Your task to perform on an android device: toggle translation in the chrome app Image 0: 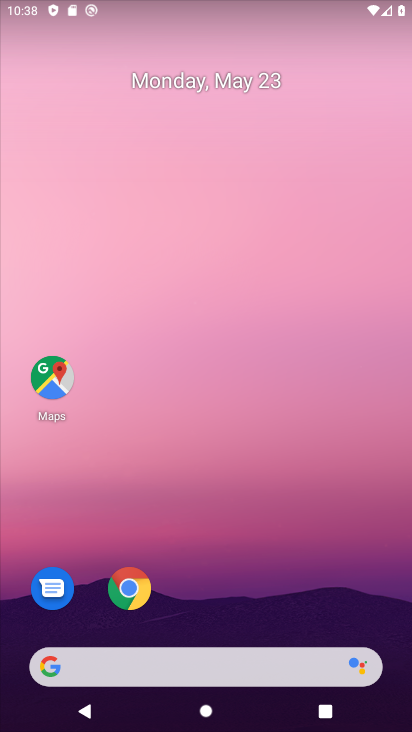
Step 0: drag from (324, 600) to (329, 143)
Your task to perform on an android device: toggle translation in the chrome app Image 1: 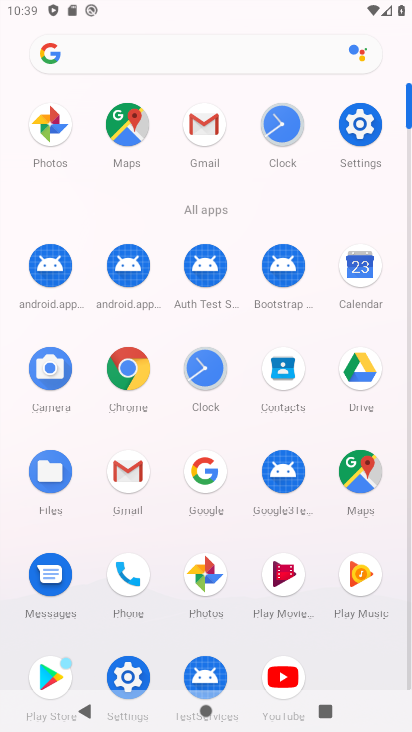
Step 1: click (139, 375)
Your task to perform on an android device: toggle translation in the chrome app Image 2: 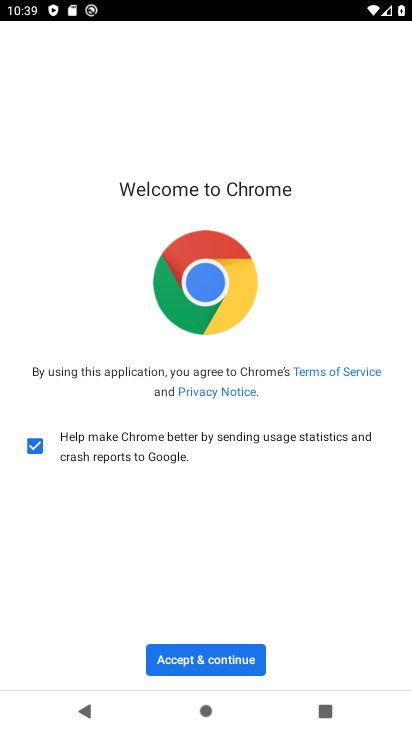
Step 2: click (222, 649)
Your task to perform on an android device: toggle translation in the chrome app Image 3: 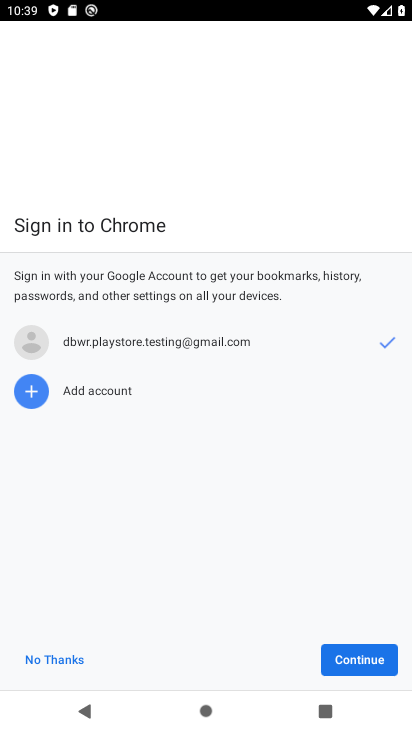
Step 3: click (331, 661)
Your task to perform on an android device: toggle translation in the chrome app Image 4: 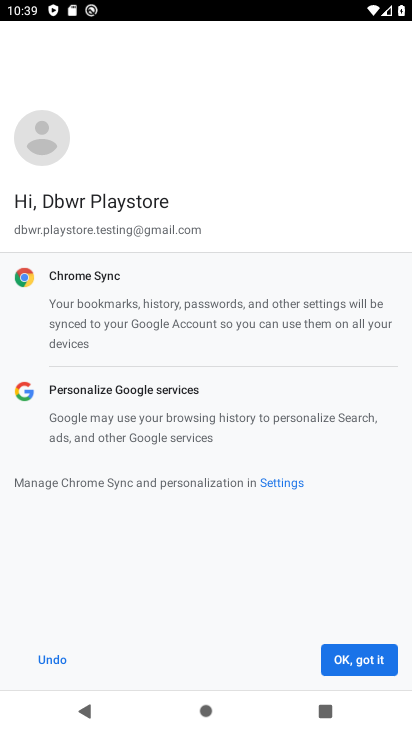
Step 4: click (385, 667)
Your task to perform on an android device: toggle translation in the chrome app Image 5: 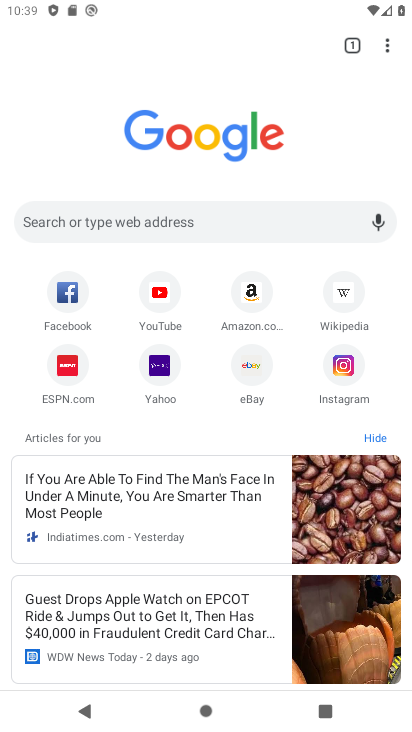
Step 5: drag from (395, 47) to (213, 376)
Your task to perform on an android device: toggle translation in the chrome app Image 6: 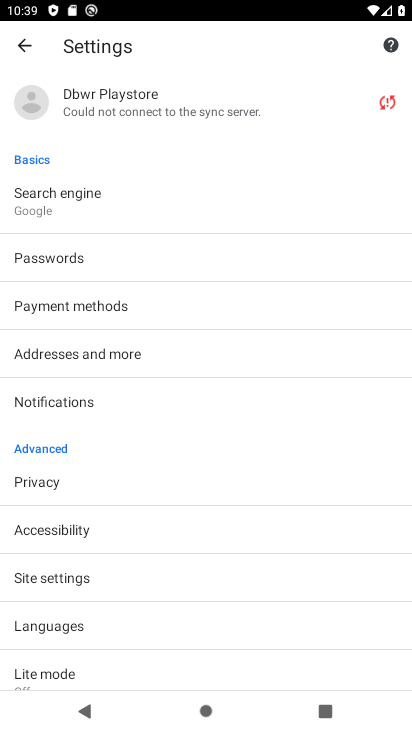
Step 6: drag from (222, 636) to (268, 279)
Your task to perform on an android device: toggle translation in the chrome app Image 7: 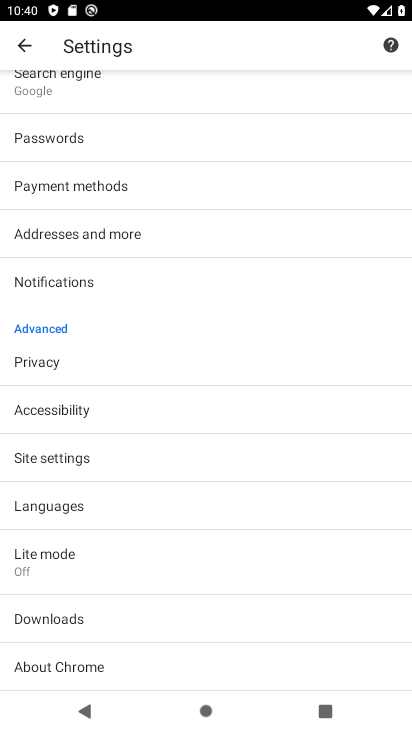
Step 7: click (139, 511)
Your task to perform on an android device: toggle translation in the chrome app Image 8: 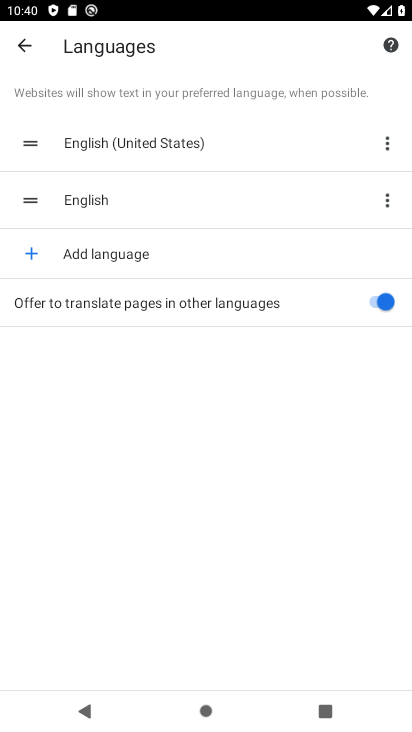
Step 8: click (372, 308)
Your task to perform on an android device: toggle translation in the chrome app Image 9: 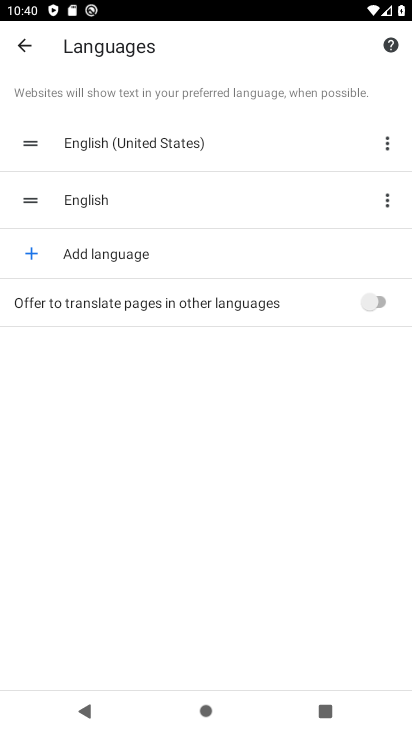
Step 9: task complete